Your task to perform on an android device: Go to ESPN.com Image 0: 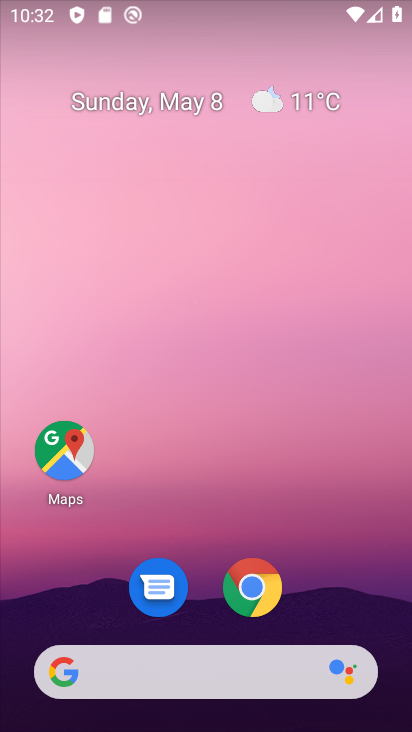
Step 0: click (262, 594)
Your task to perform on an android device: Go to ESPN.com Image 1: 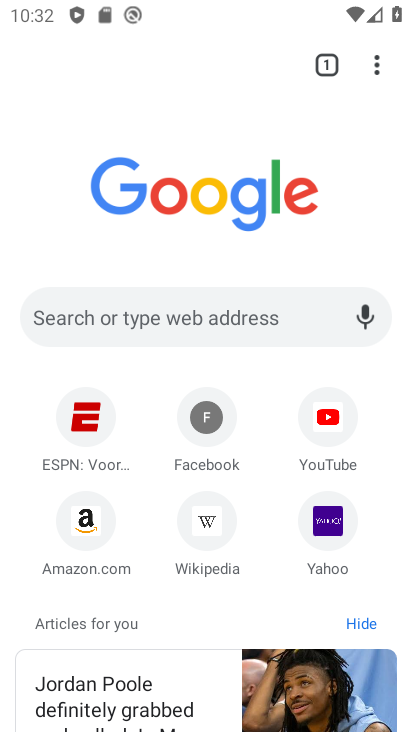
Step 1: click (83, 438)
Your task to perform on an android device: Go to ESPN.com Image 2: 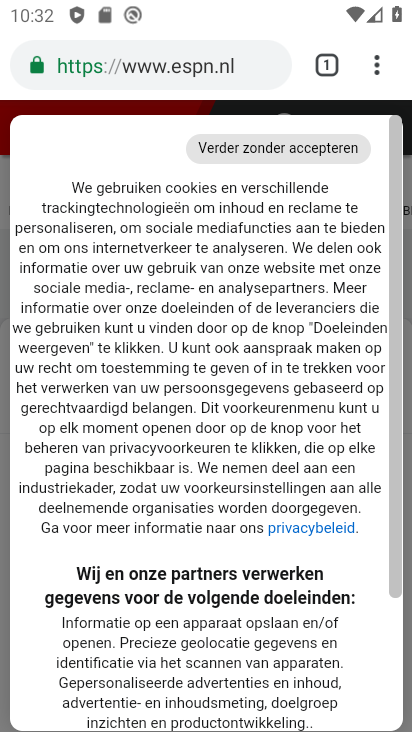
Step 2: task complete